Your task to perform on an android device: Go to calendar. Show me events next week Image 0: 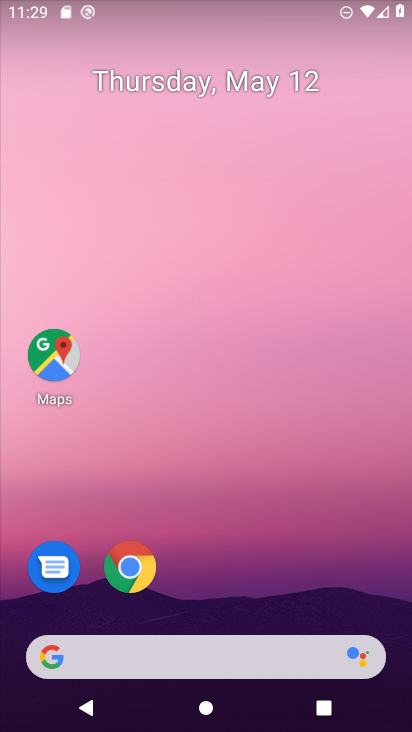
Step 0: drag from (225, 626) to (253, 185)
Your task to perform on an android device: Go to calendar. Show me events next week Image 1: 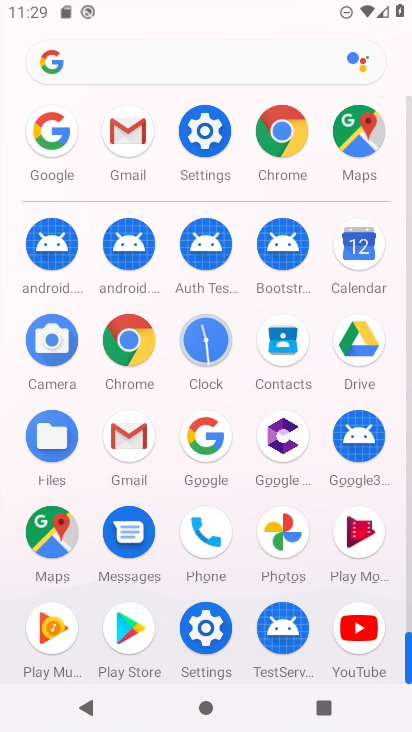
Step 1: click (168, 230)
Your task to perform on an android device: Go to calendar. Show me events next week Image 2: 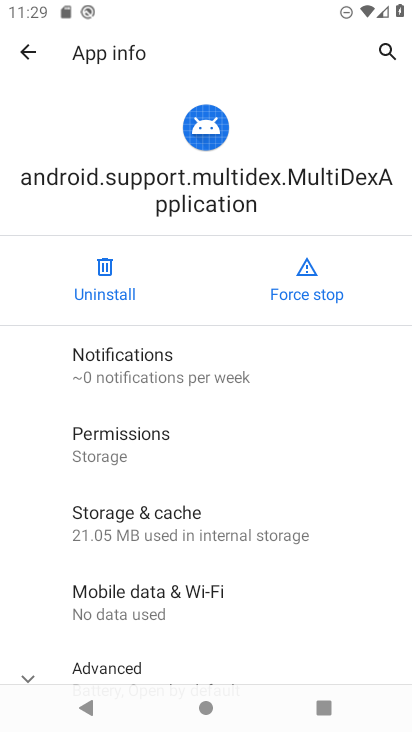
Step 2: click (33, 43)
Your task to perform on an android device: Go to calendar. Show me events next week Image 3: 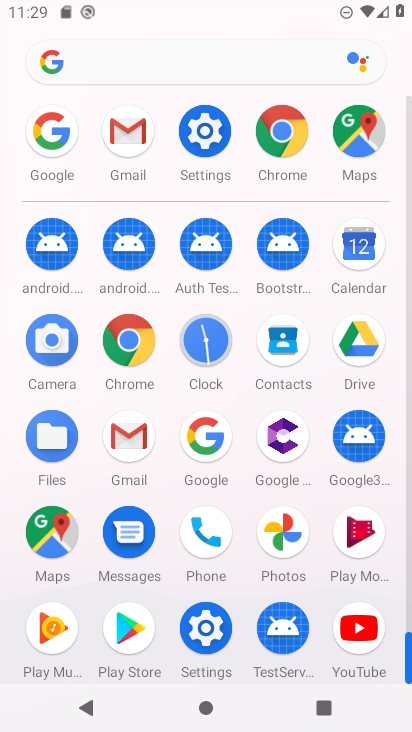
Step 3: click (370, 270)
Your task to perform on an android device: Go to calendar. Show me events next week Image 4: 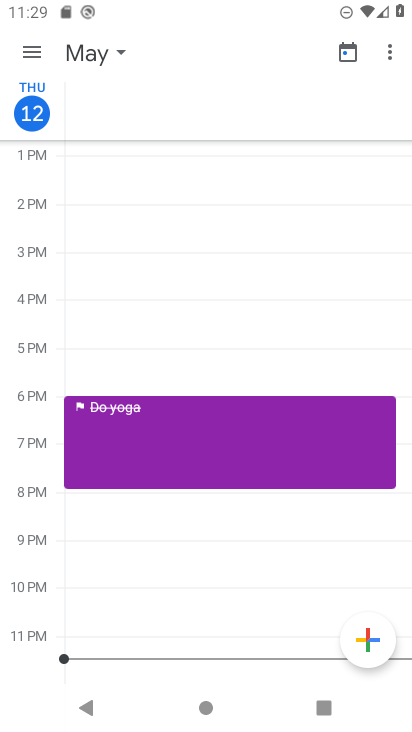
Step 4: click (91, 52)
Your task to perform on an android device: Go to calendar. Show me events next week Image 5: 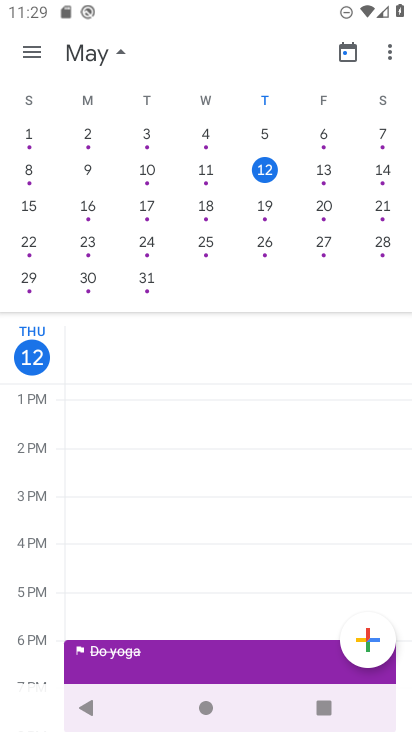
Step 5: click (37, 208)
Your task to perform on an android device: Go to calendar. Show me events next week Image 6: 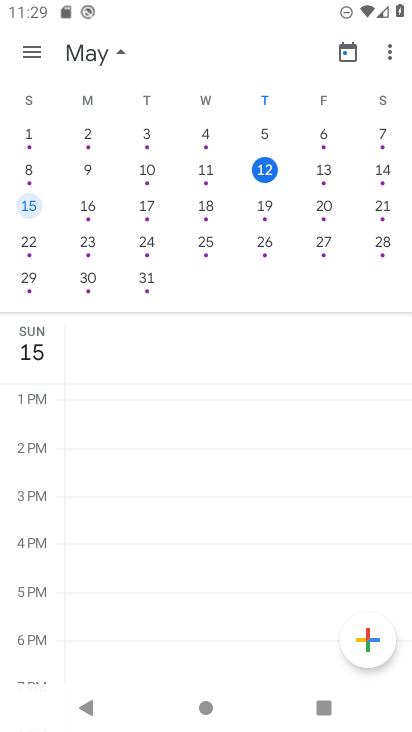
Step 6: task complete